Your task to perform on an android device: Turn on the flashlight Image 0: 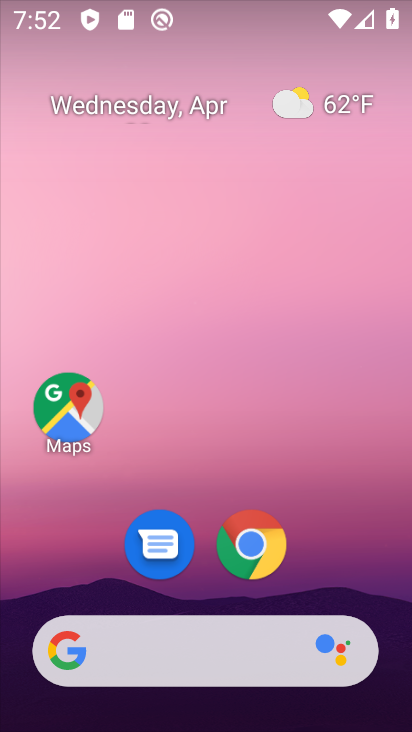
Step 0: drag from (345, 558) to (202, 97)
Your task to perform on an android device: Turn on the flashlight Image 1: 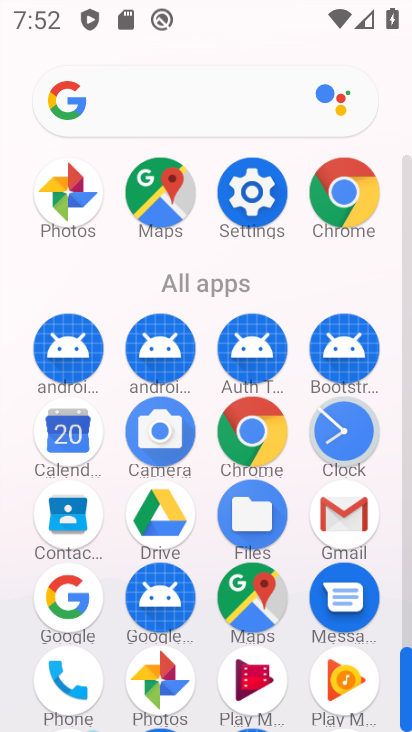
Step 1: click (254, 187)
Your task to perform on an android device: Turn on the flashlight Image 2: 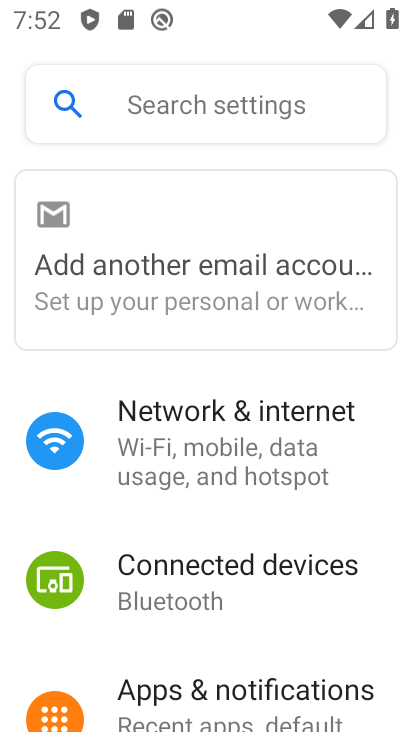
Step 2: click (234, 118)
Your task to perform on an android device: Turn on the flashlight Image 3: 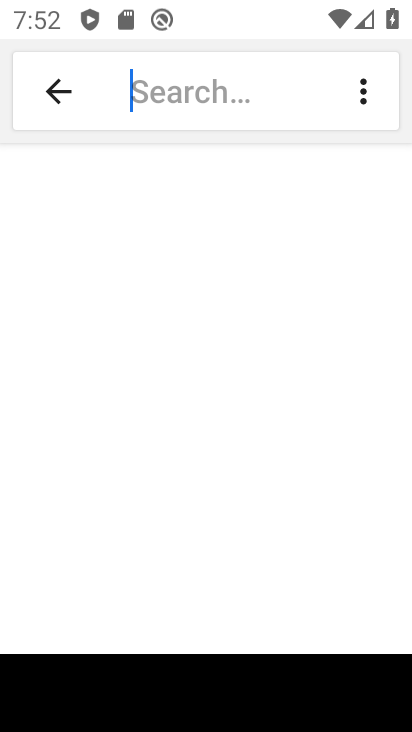
Step 3: type "flashlight"
Your task to perform on an android device: Turn on the flashlight Image 4: 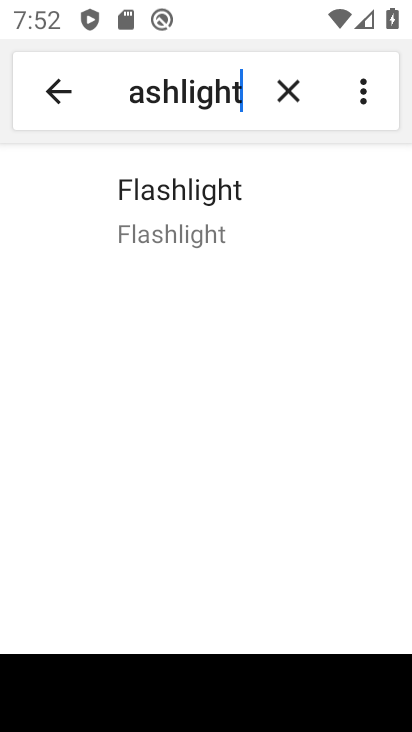
Step 4: click (169, 216)
Your task to perform on an android device: Turn on the flashlight Image 5: 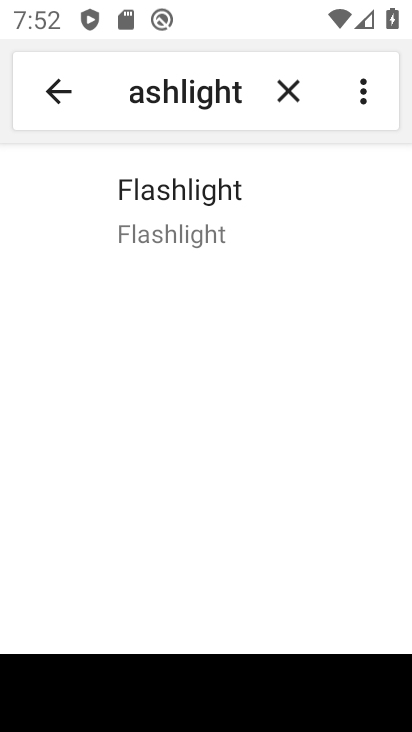
Step 5: click (169, 223)
Your task to perform on an android device: Turn on the flashlight Image 6: 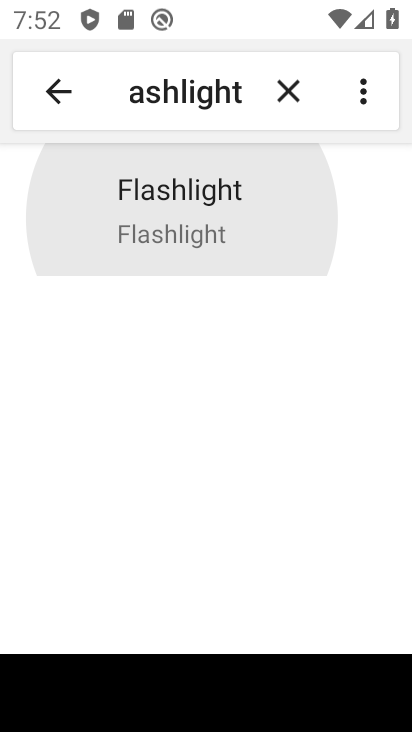
Step 6: click (169, 223)
Your task to perform on an android device: Turn on the flashlight Image 7: 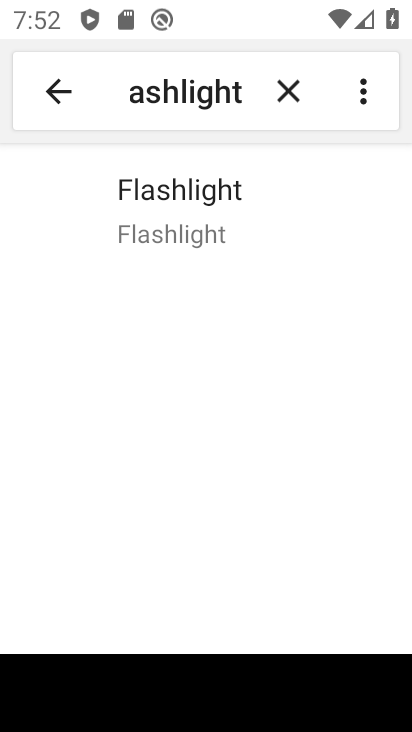
Step 7: task complete